Your task to perform on an android device: add a contact in the contacts app Image 0: 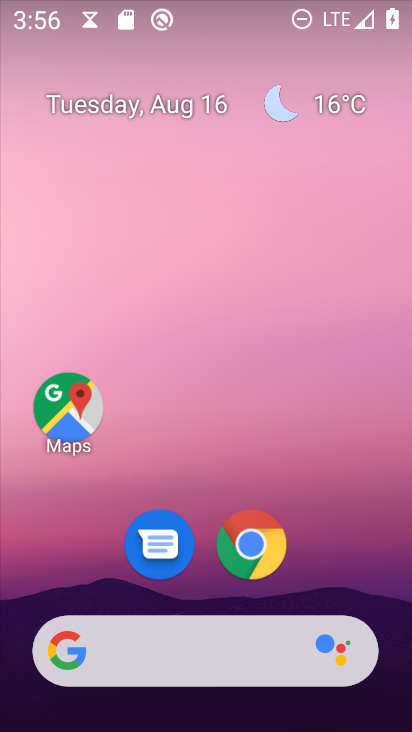
Step 0: drag from (190, 673) to (261, 76)
Your task to perform on an android device: add a contact in the contacts app Image 1: 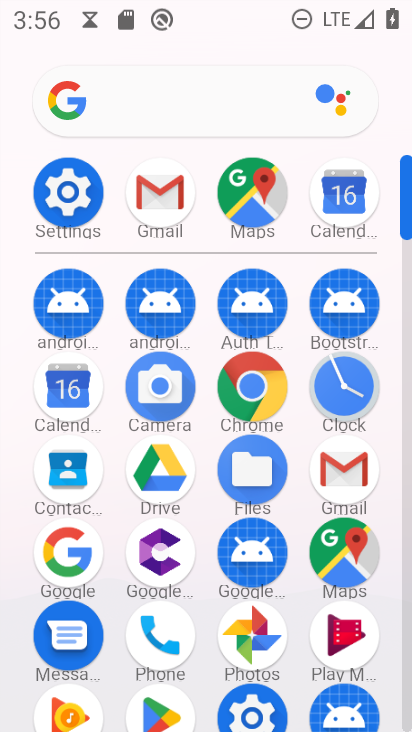
Step 1: click (69, 472)
Your task to perform on an android device: add a contact in the contacts app Image 2: 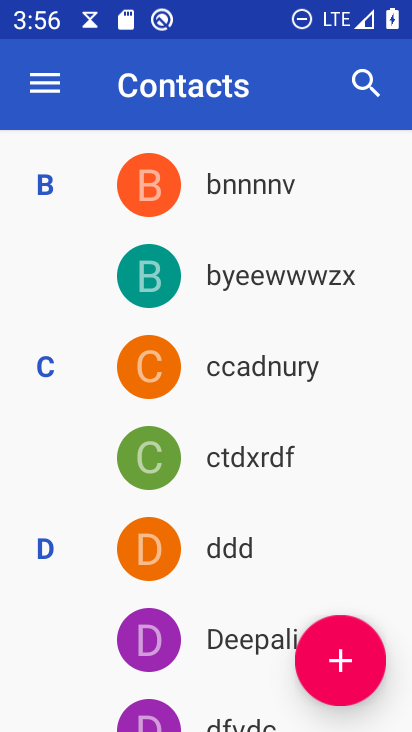
Step 2: click (338, 661)
Your task to perform on an android device: add a contact in the contacts app Image 3: 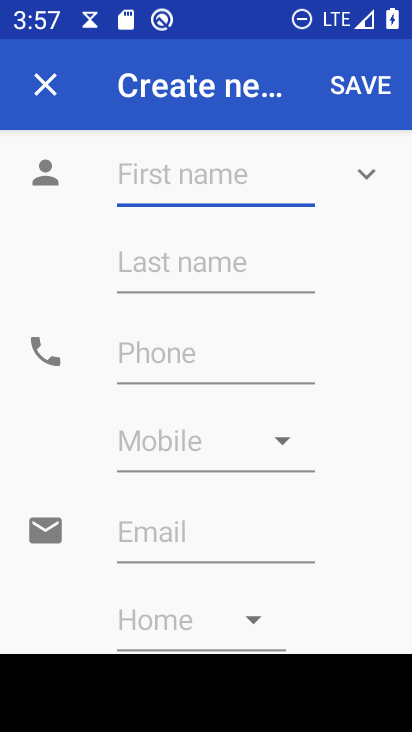
Step 3: type "Sanjeev"
Your task to perform on an android device: add a contact in the contacts app Image 4: 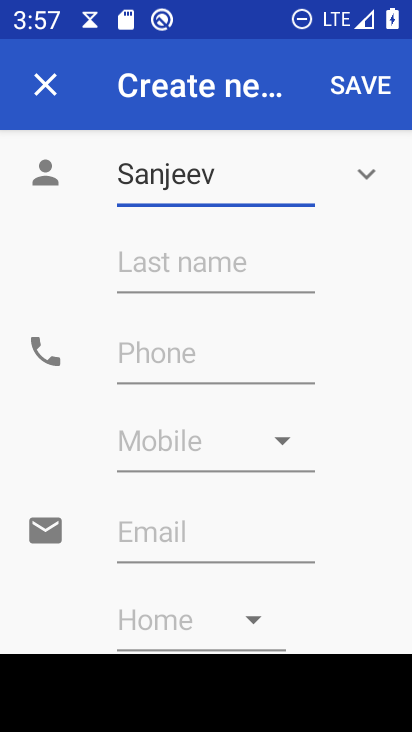
Step 4: click (211, 288)
Your task to perform on an android device: add a contact in the contacts app Image 5: 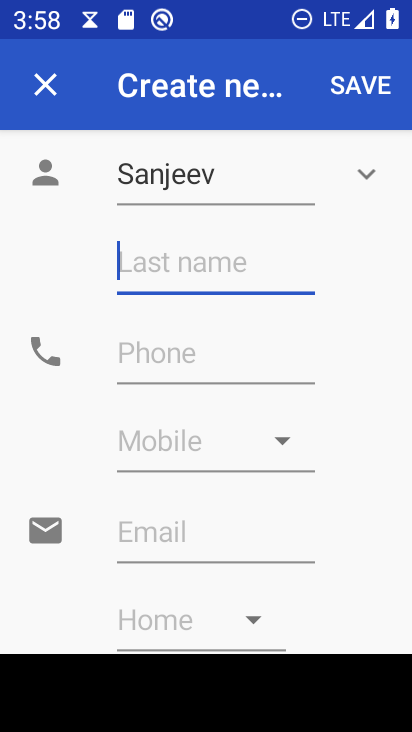
Step 5: type "Malohtra"
Your task to perform on an android device: add a contact in the contacts app Image 6: 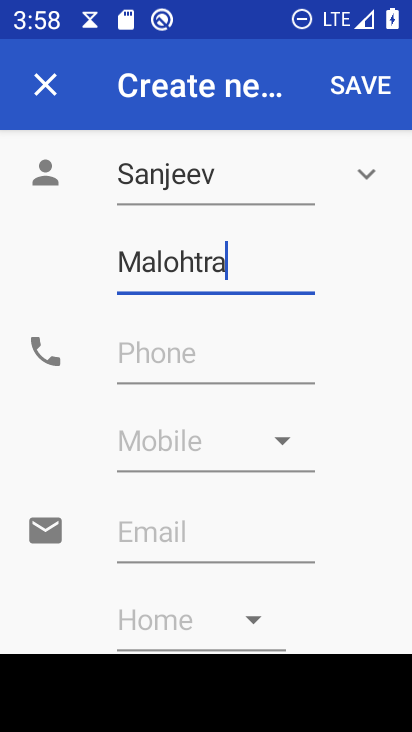
Step 6: click (213, 348)
Your task to perform on an android device: add a contact in the contacts app Image 7: 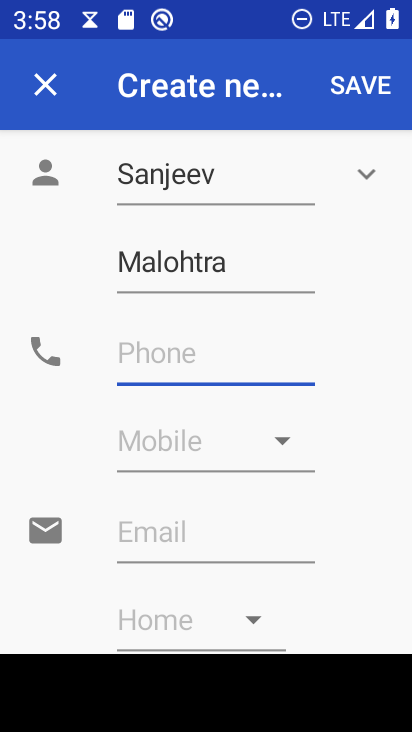
Step 7: type "0998877665544332211"
Your task to perform on an android device: add a contact in the contacts app Image 8: 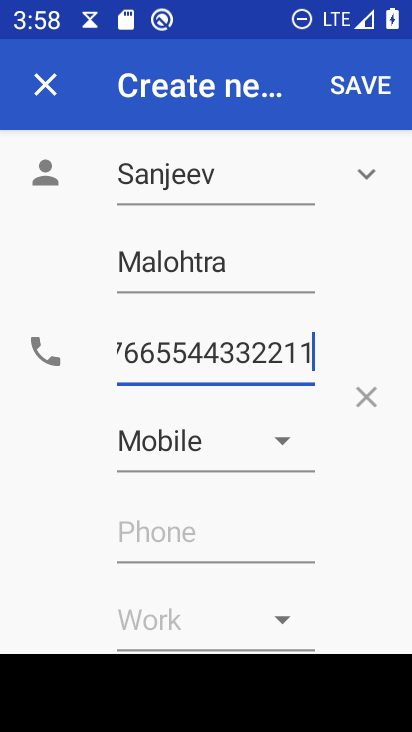
Step 8: click (367, 84)
Your task to perform on an android device: add a contact in the contacts app Image 9: 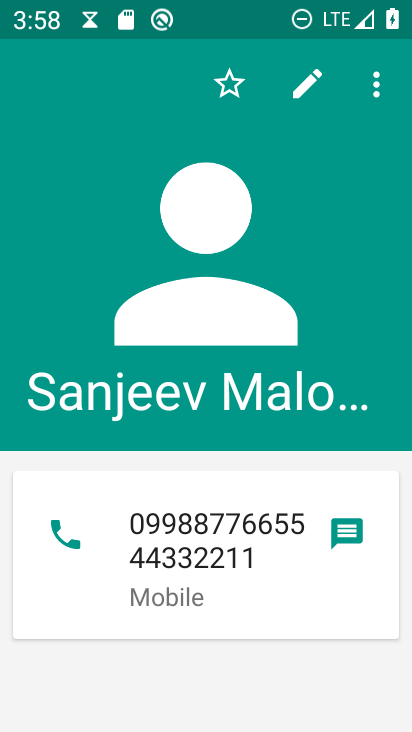
Step 9: task complete